Your task to perform on an android device: turn on showing notifications on the lock screen Image 0: 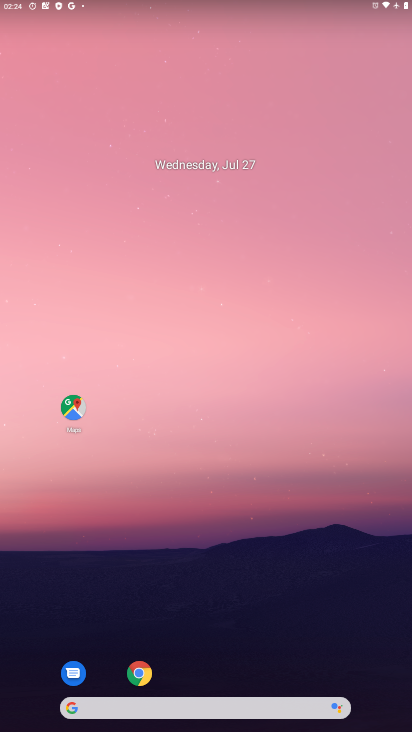
Step 0: drag from (228, 690) to (266, 22)
Your task to perform on an android device: turn on showing notifications on the lock screen Image 1: 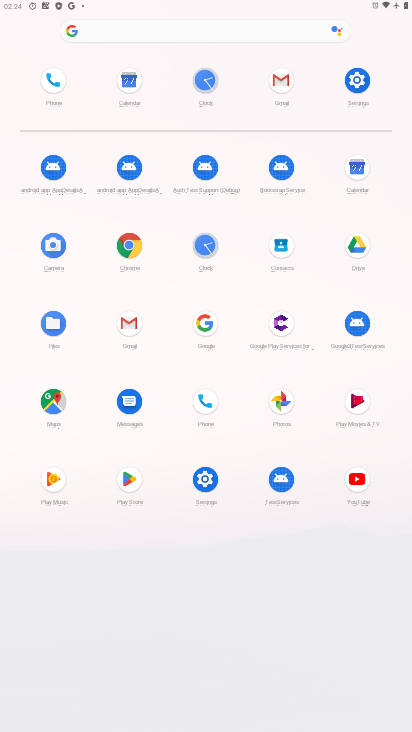
Step 1: click (351, 83)
Your task to perform on an android device: turn on showing notifications on the lock screen Image 2: 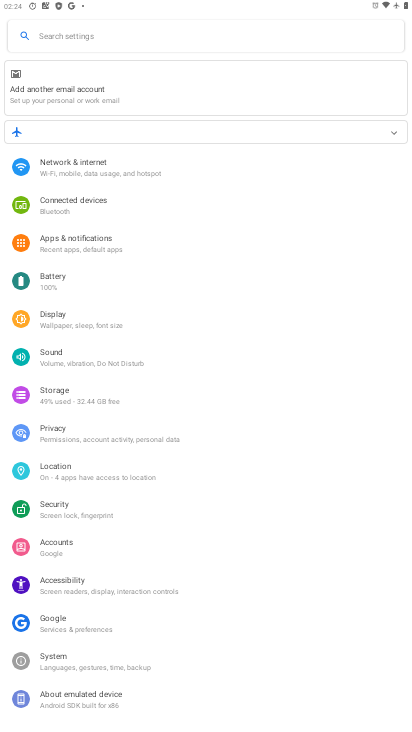
Step 2: click (71, 242)
Your task to perform on an android device: turn on showing notifications on the lock screen Image 3: 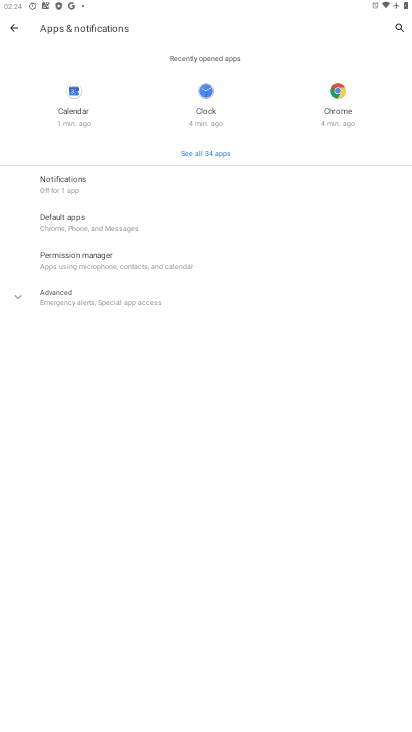
Step 3: click (52, 179)
Your task to perform on an android device: turn on showing notifications on the lock screen Image 4: 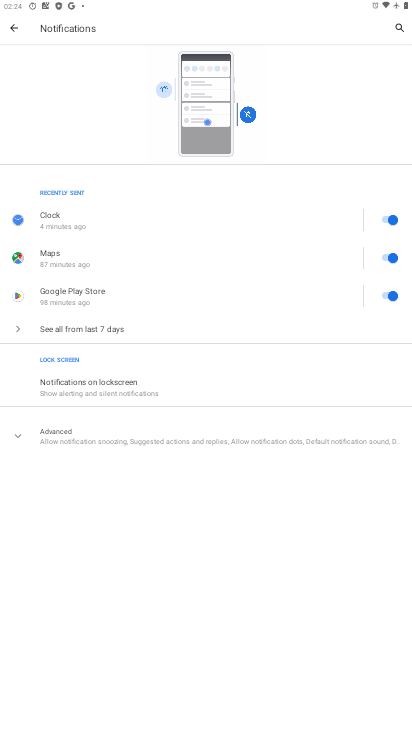
Step 4: click (44, 386)
Your task to perform on an android device: turn on showing notifications on the lock screen Image 5: 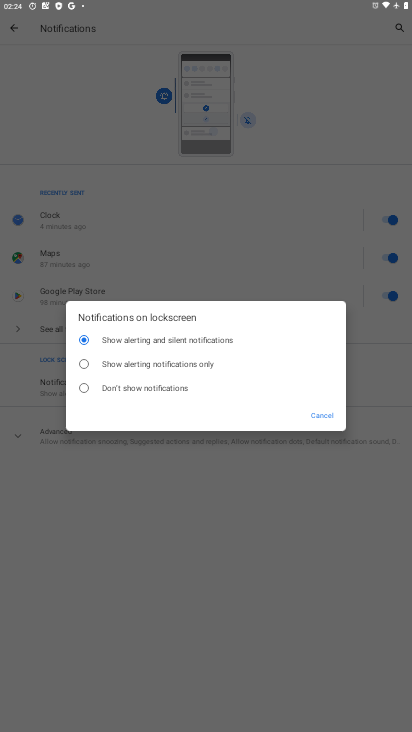
Step 5: task complete